Your task to perform on an android device: turn pop-ups off in chrome Image 0: 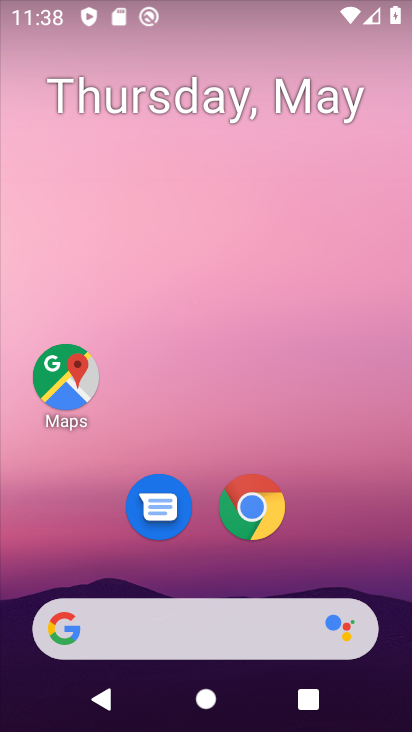
Step 0: drag from (220, 619) to (310, 46)
Your task to perform on an android device: turn pop-ups off in chrome Image 1: 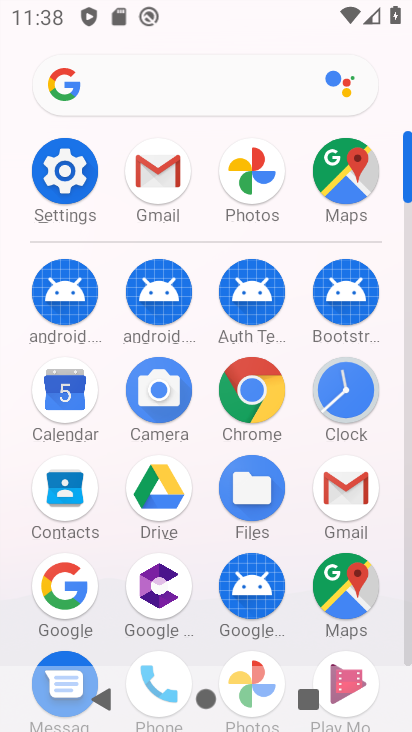
Step 1: click (258, 403)
Your task to perform on an android device: turn pop-ups off in chrome Image 2: 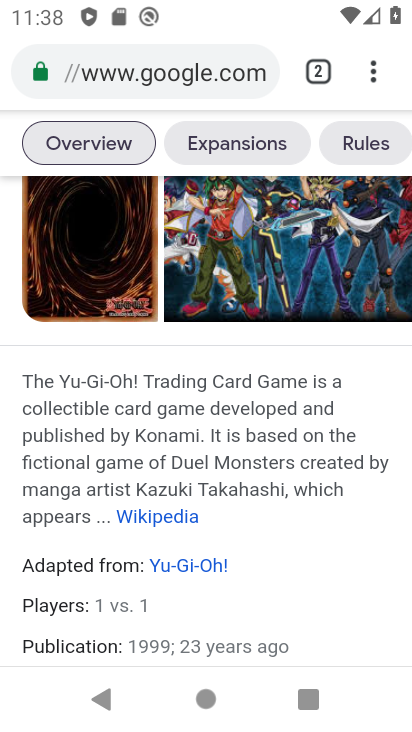
Step 2: click (378, 76)
Your task to perform on an android device: turn pop-ups off in chrome Image 3: 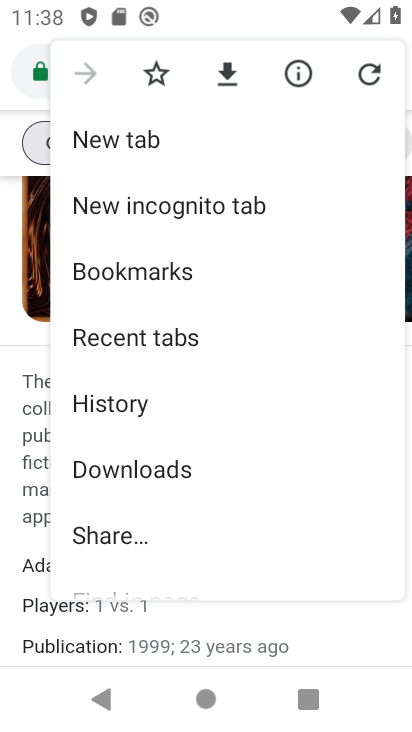
Step 3: drag from (181, 488) to (202, 77)
Your task to perform on an android device: turn pop-ups off in chrome Image 4: 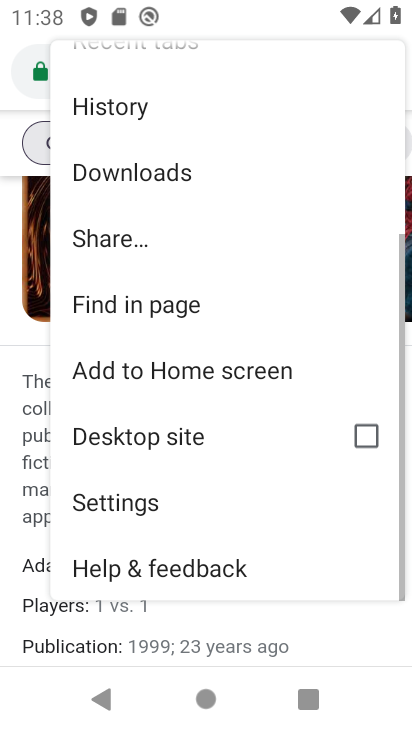
Step 4: click (181, 509)
Your task to perform on an android device: turn pop-ups off in chrome Image 5: 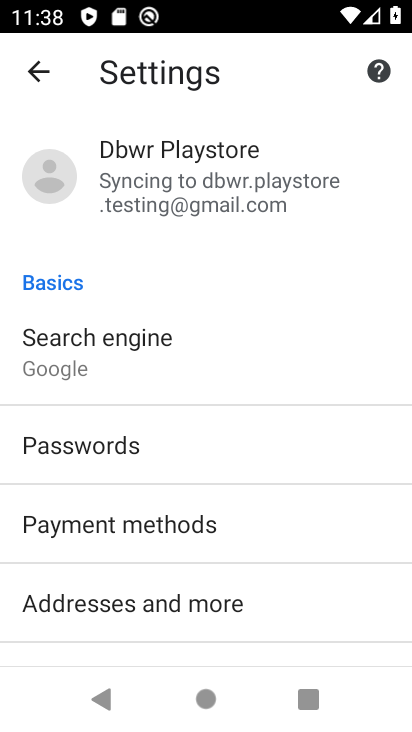
Step 5: drag from (216, 499) to (225, 97)
Your task to perform on an android device: turn pop-ups off in chrome Image 6: 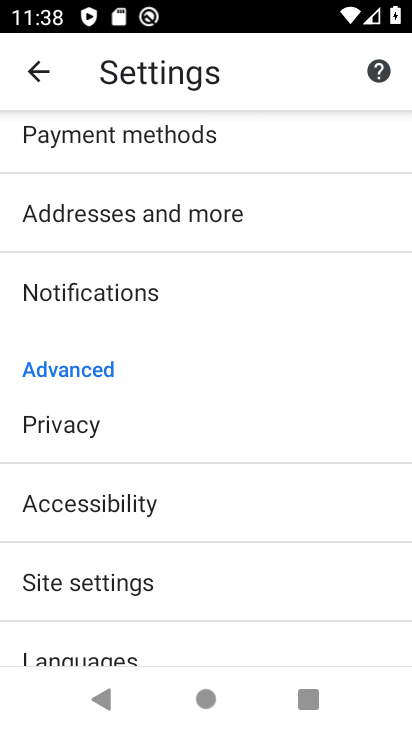
Step 6: drag from (214, 563) to (257, 298)
Your task to perform on an android device: turn pop-ups off in chrome Image 7: 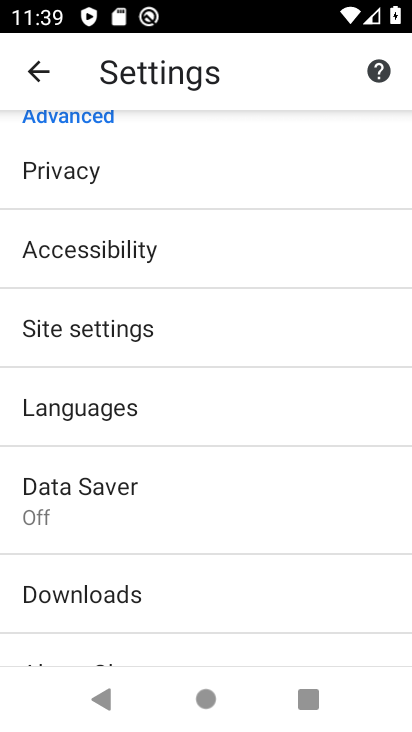
Step 7: click (126, 334)
Your task to perform on an android device: turn pop-ups off in chrome Image 8: 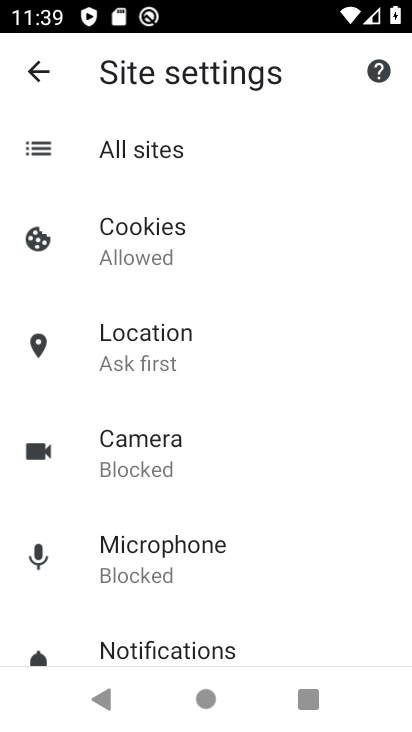
Step 8: drag from (168, 560) to (194, 90)
Your task to perform on an android device: turn pop-ups off in chrome Image 9: 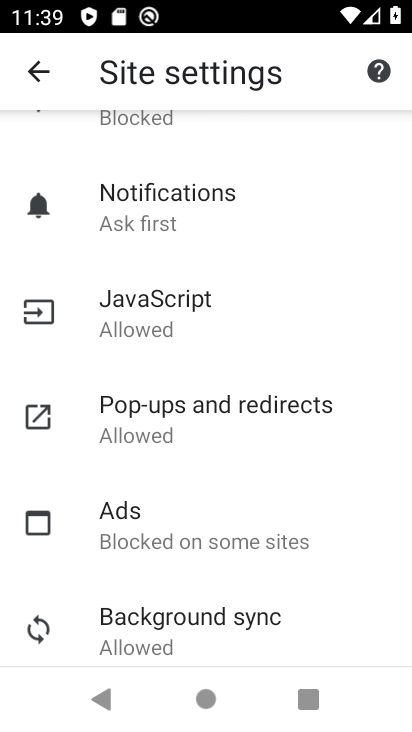
Step 9: click (226, 417)
Your task to perform on an android device: turn pop-ups off in chrome Image 10: 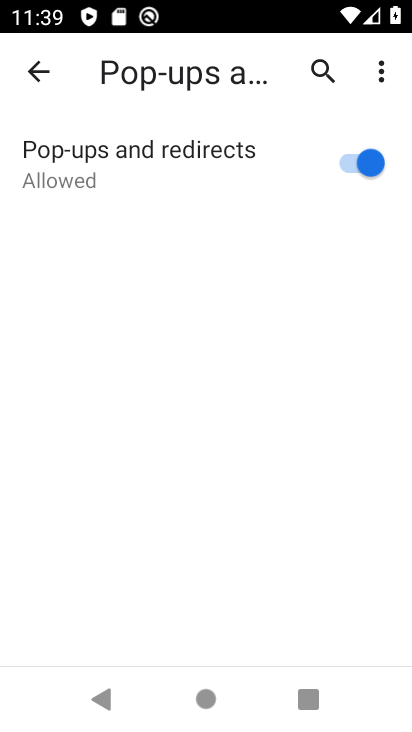
Step 10: click (358, 171)
Your task to perform on an android device: turn pop-ups off in chrome Image 11: 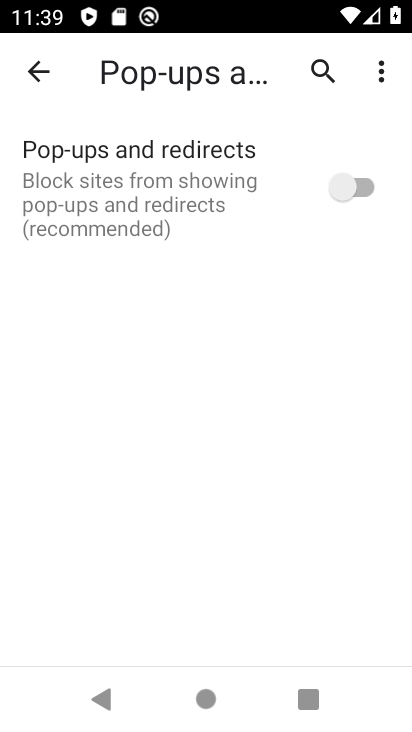
Step 11: task complete